Your task to perform on an android device: change the clock display to show seconds Image 0: 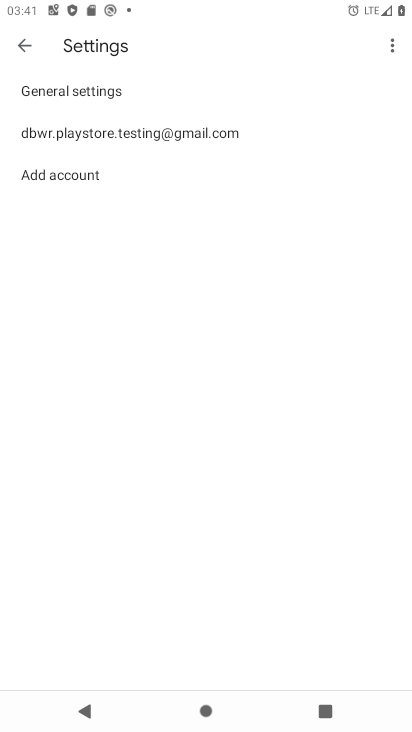
Step 0: press home button
Your task to perform on an android device: change the clock display to show seconds Image 1: 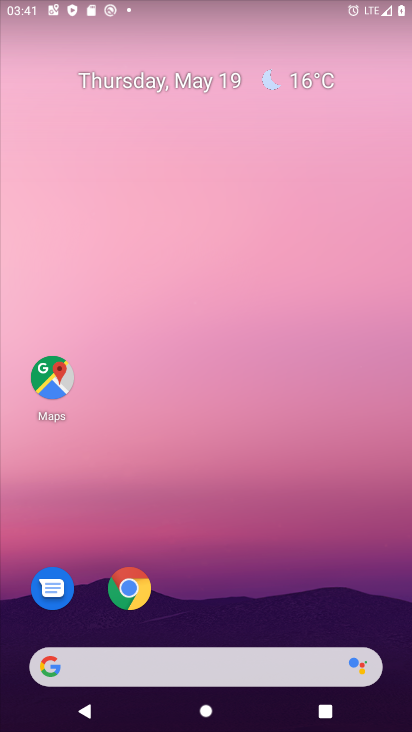
Step 1: drag from (284, 507) to (308, 40)
Your task to perform on an android device: change the clock display to show seconds Image 2: 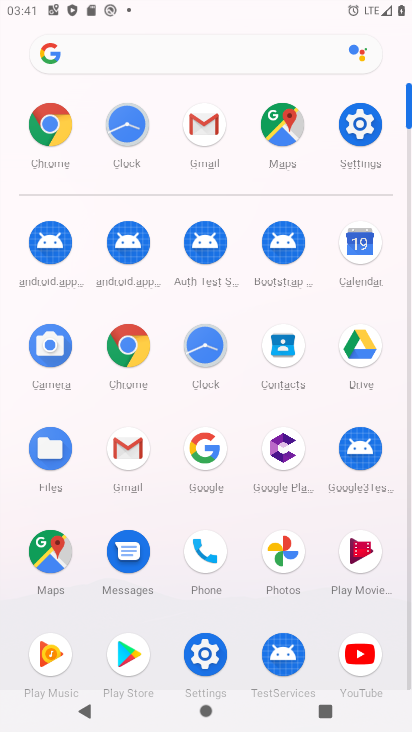
Step 2: click (201, 338)
Your task to perform on an android device: change the clock display to show seconds Image 3: 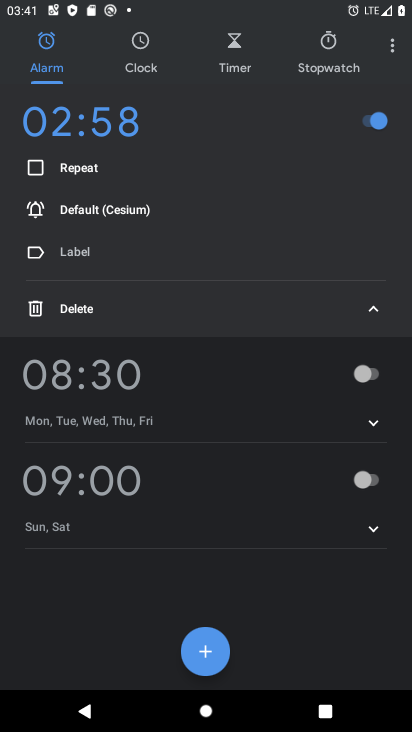
Step 3: click (387, 49)
Your task to perform on an android device: change the clock display to show seconds Image 4: 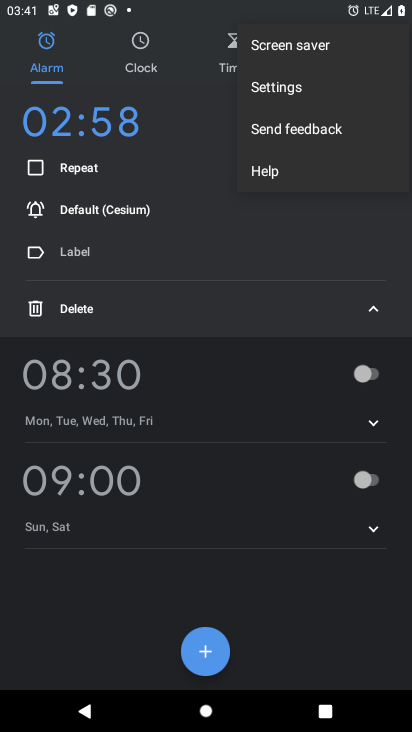
Step 4: click (271, 92)
Your task to perform on an android device: change the clock display to show seconds Image 5: 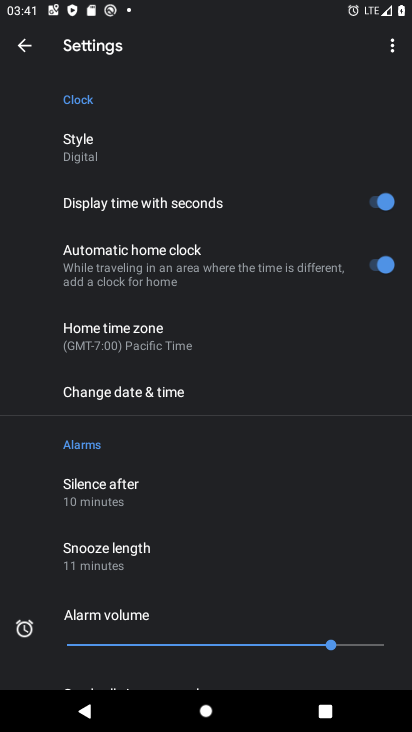
Step 5: task complete